Your task to perform on an android device: Open Google Maps and go to "Timeline" Image 0: 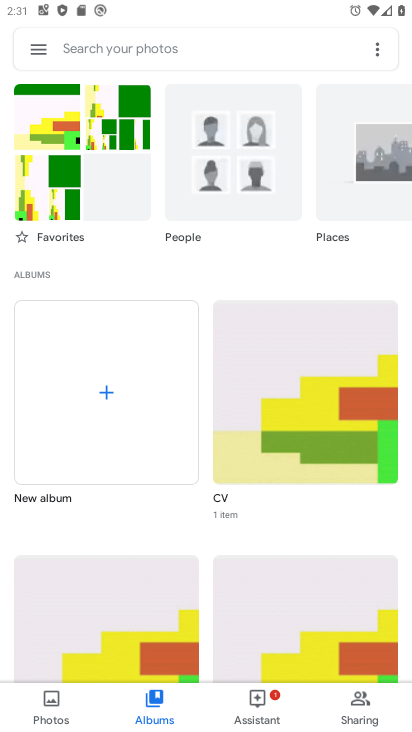
Step 0: press home button
Your task to perform on an android device: Open Google Maps and go to "Timeline" Image 1: 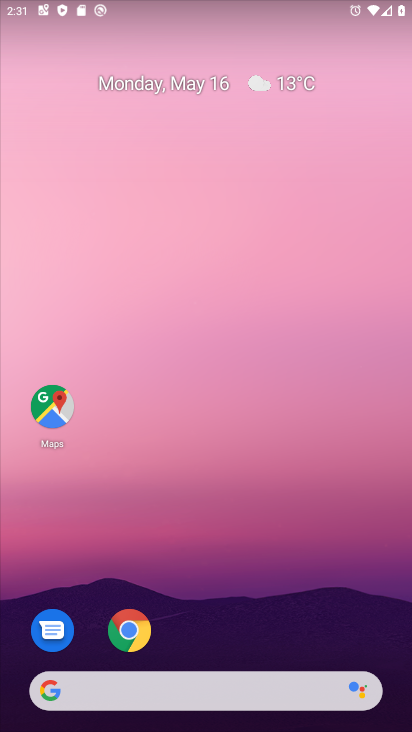
Step 1: click (46, 407)
Your task to perform on an android device: Open Google Maps and go to "Timeline" Image 2: 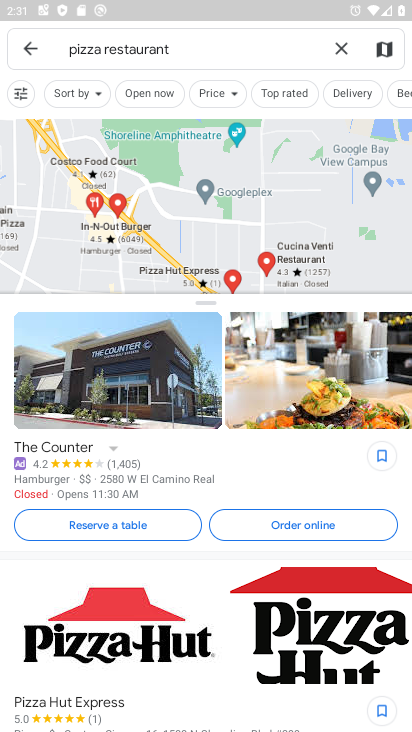
Step 2: click (25, 46)
Your task to perform on an android device: Open Google Maps and go to "Timeline" Image 3: 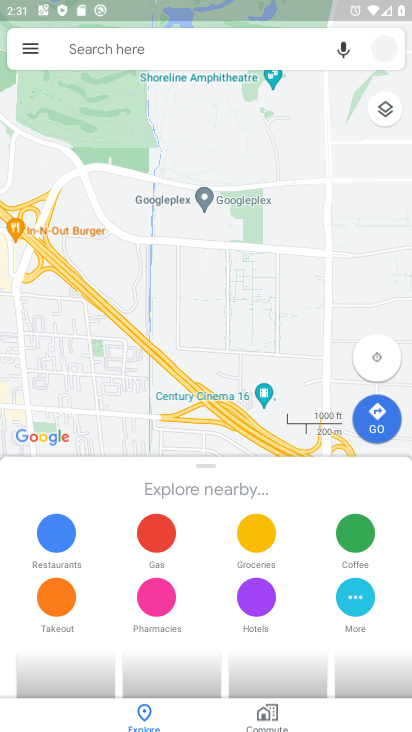
Step 3: click (28, 43)
Your task to perform on an android device: Open Google Maps and go to "Timeline" Image 4: 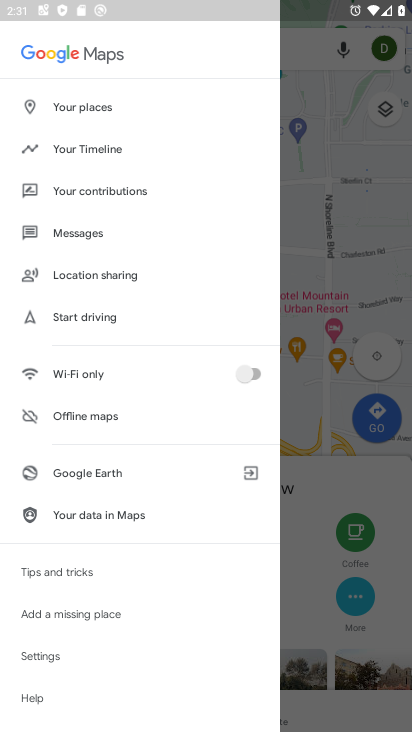
Step 4: click (91, 142)
Your task to perform on an android device: Open Google Maps and go to "Timeline" Image 5: 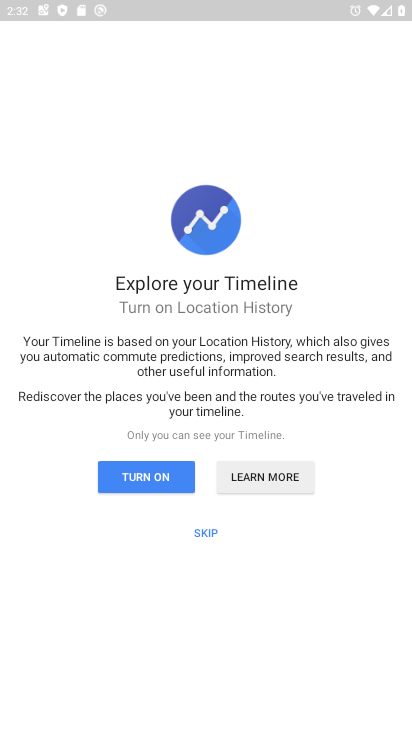
Step 5: click (167, 471)
Your task to perform on an android device: Open Google Maps and go to "Timeline" Image 6: 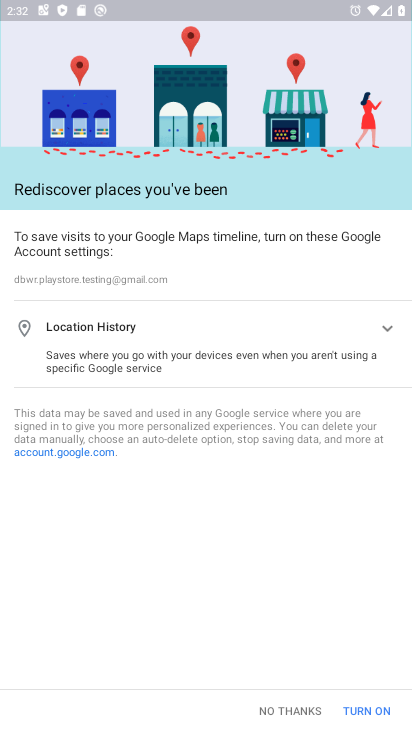
Step 6: click (349, 709)
Your task to perform on an android device: Open Google Maps and go to "Timeline" Image 7: 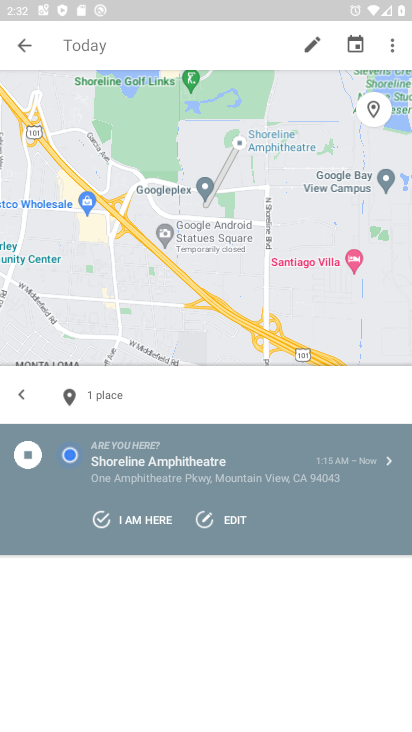
Step 7: task complete